Your task to perform on an android device: Check the weather Image 0: 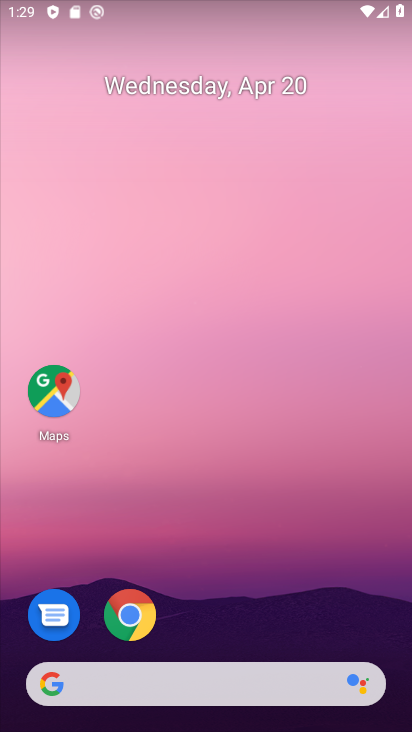
Step 0: drag from (264, 625) to (291, 60)
Your task to perform on an android device: Check the weather Image 1: 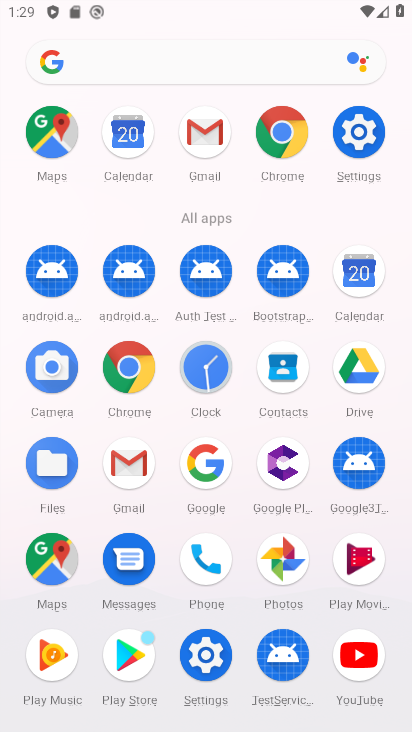
Step 1: click (137, 62)
Your task to perform on an android device: Check the weather Image 2: 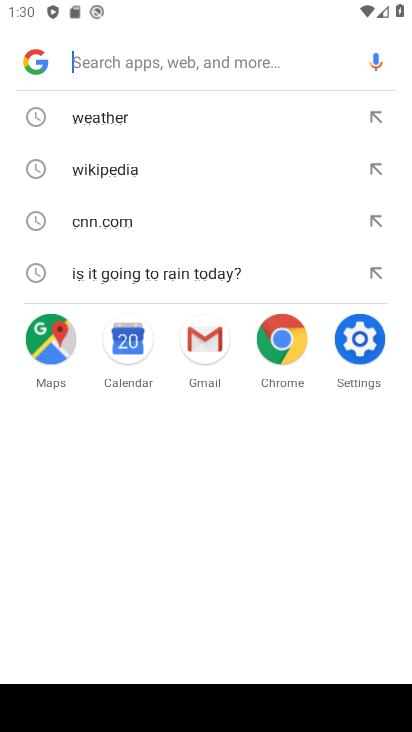
Step 2: type "weather"
Your task to perform on an android device: Check the weather Image 3: 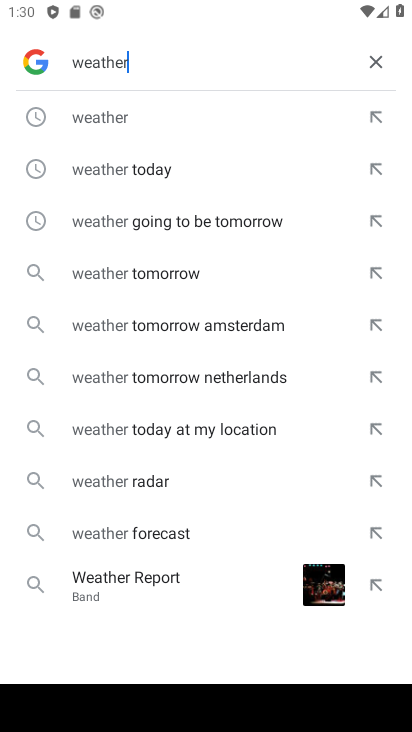
Step 3: click (104, 127)
Your task to perform on an android device: Check the weather Image 4: 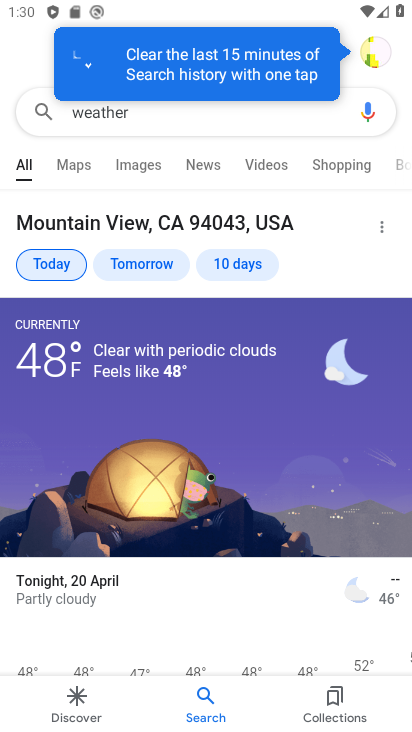
Step 4: task complete